Your task to perform on an android device: Show the shopping cart on bestbuy. Add "beats solo 3" to the cart on bestbuy, then select checkout. Image 0: 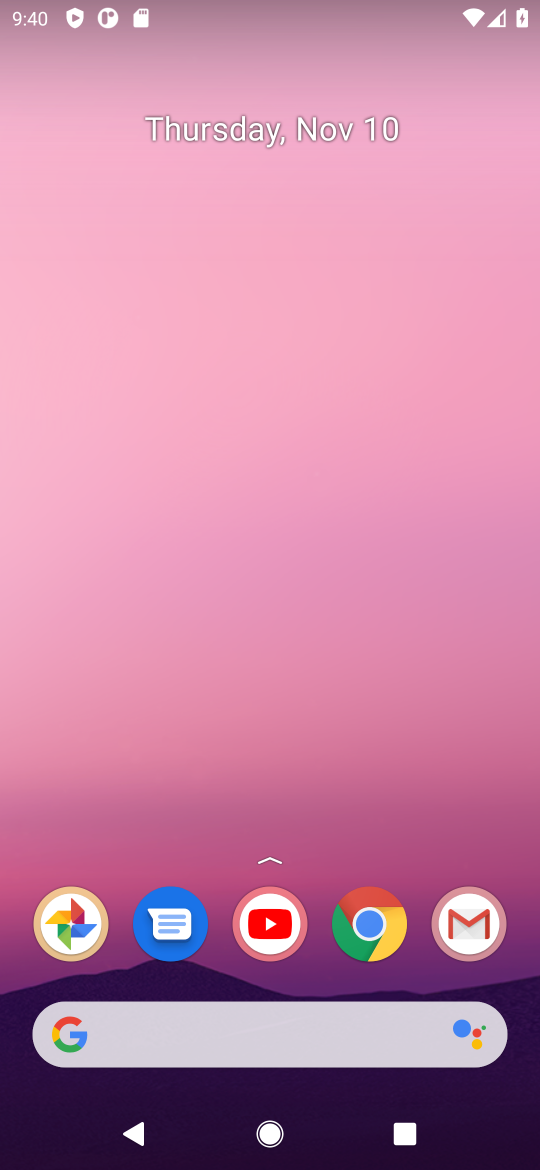
Step 0: click (371, 922)
Your task to perform on an android device: Show the shopping cart on bestbuy. Add "beats solo 3" to the cart on bestbuy, then select checkout. Image 1: 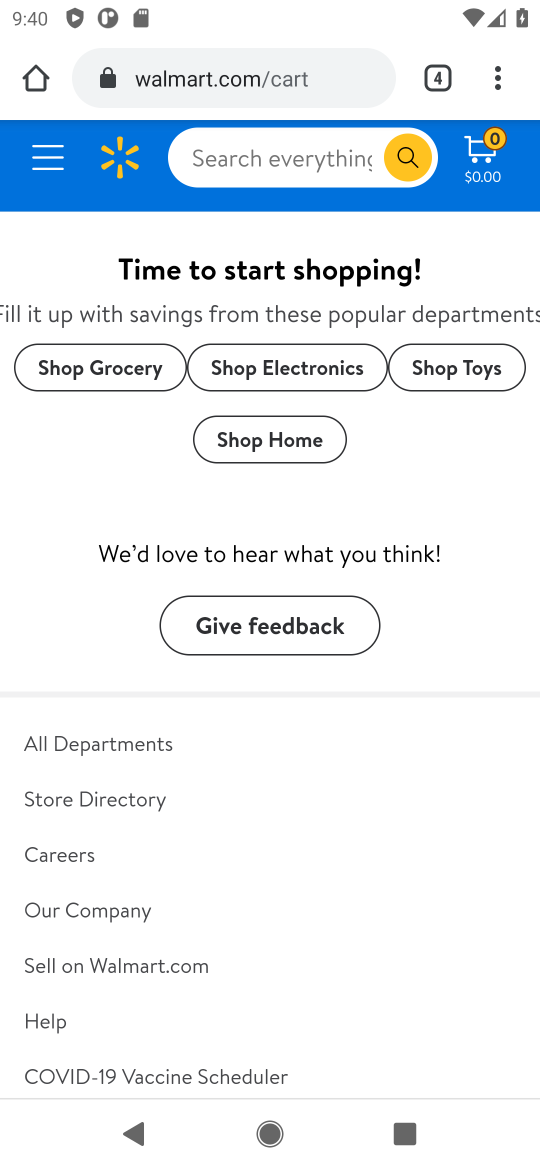
Step 1: click (212, 78)
Your task to perform on an android device: Show the shopping cart on bestbuy. Add "beats solo 3" to the cart on bestbuy, then select checkout. Image 2: 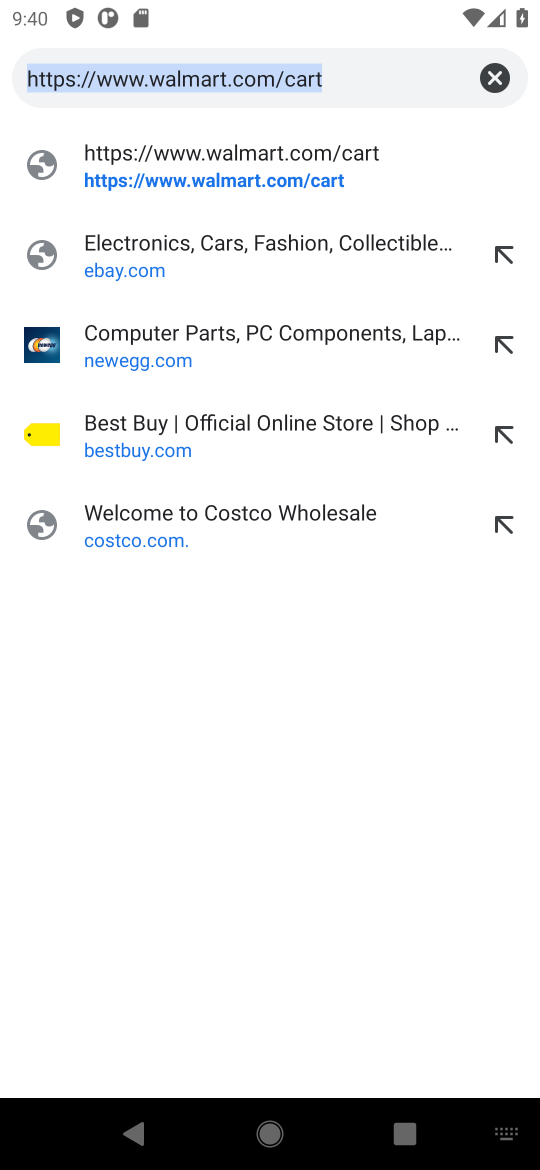
Step 2: click (136, 423)
Your task to perform on an android device: Show the shopping cart on bestbuy. Add "beats solo 3" to the cart on bestbuy, then select checkout. Image 3: 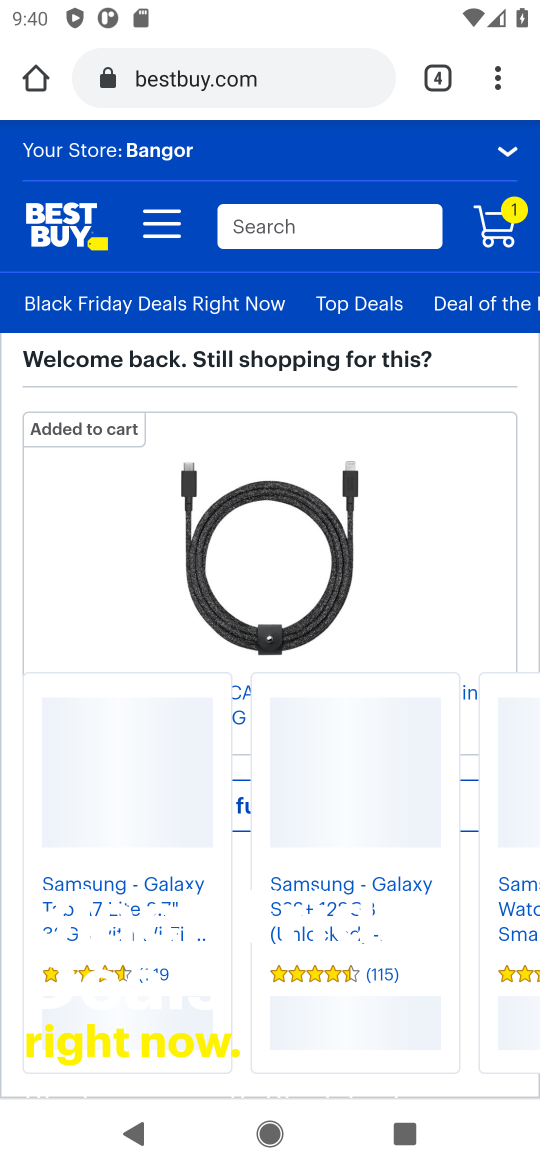
Step 3: click (491, 231)
Your task to perform on an android device: Show the shopping cart on bestbuy. Add "beats solo 3" to the cart on bestbuy, then select checkout. Image 4: 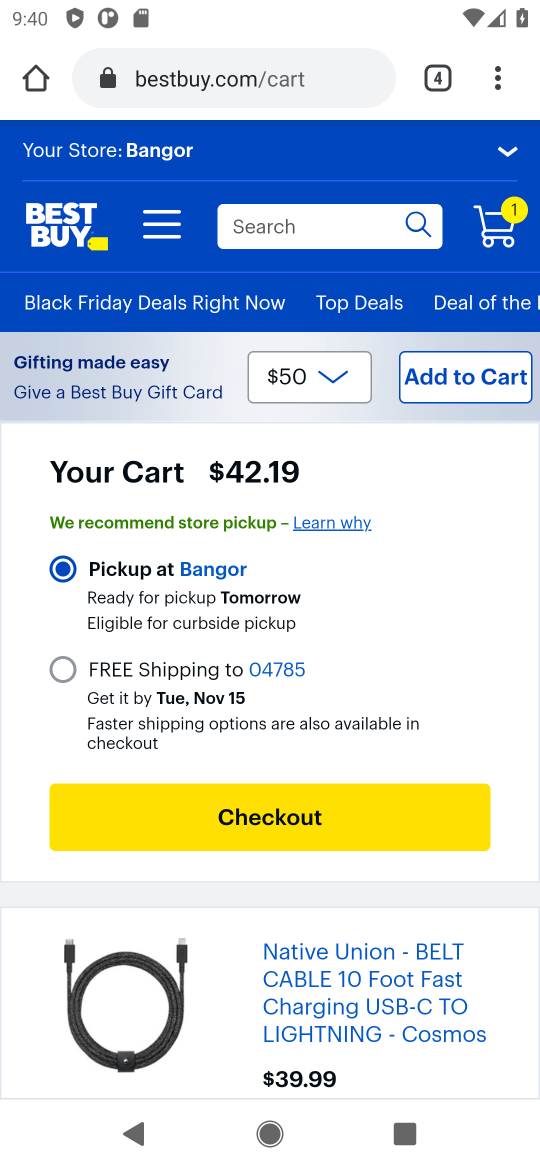
Step 4: drag from (358, 974) to (344, 617)
Your task to perform on an android device: Show the shopping cart on bestbuy. Add "beats solo 3" to the cart on bestbuy, then select checkout. Image 5: 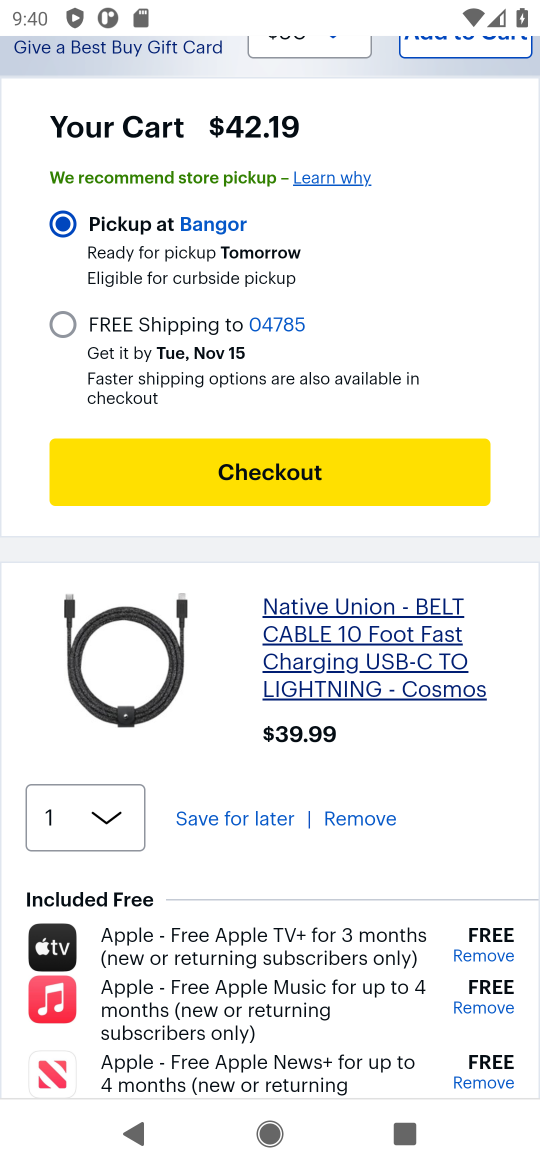
Step 5: drag from (317, 704) to (328, 982)
Your task to perform on an android device: Show the shopping cart on bestbuy. Add "beats solo 3" to the cart on bestbuy, then select checkout. Image 6: 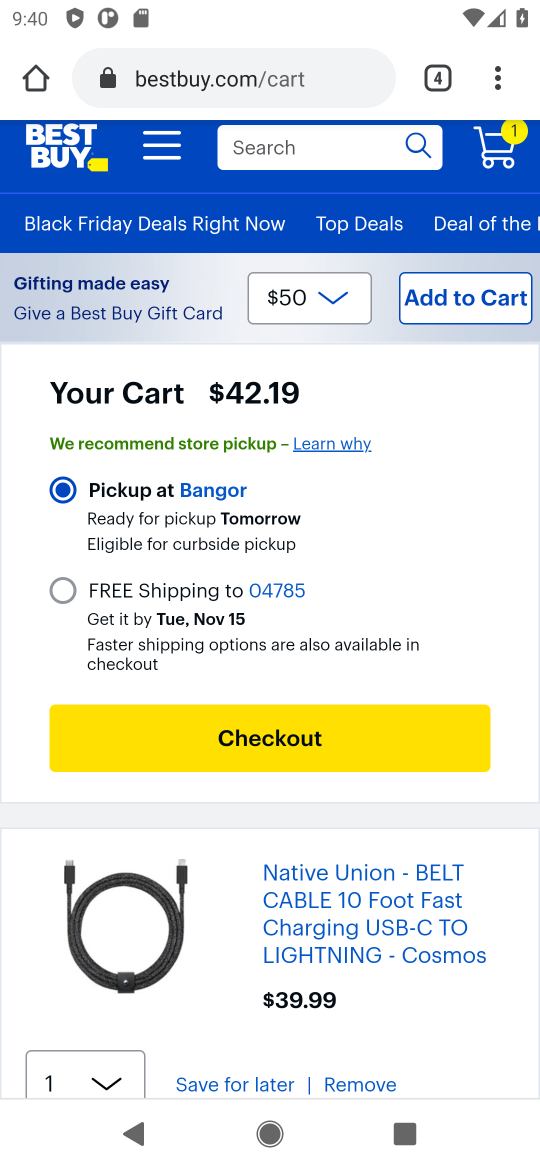
Step 6: click (297, 152)
Your task to perform on an android device: Show the shopping cart on bestbuy. Add "beats solo 3" to the cart on bestbuy, then select checkout. Image 7: 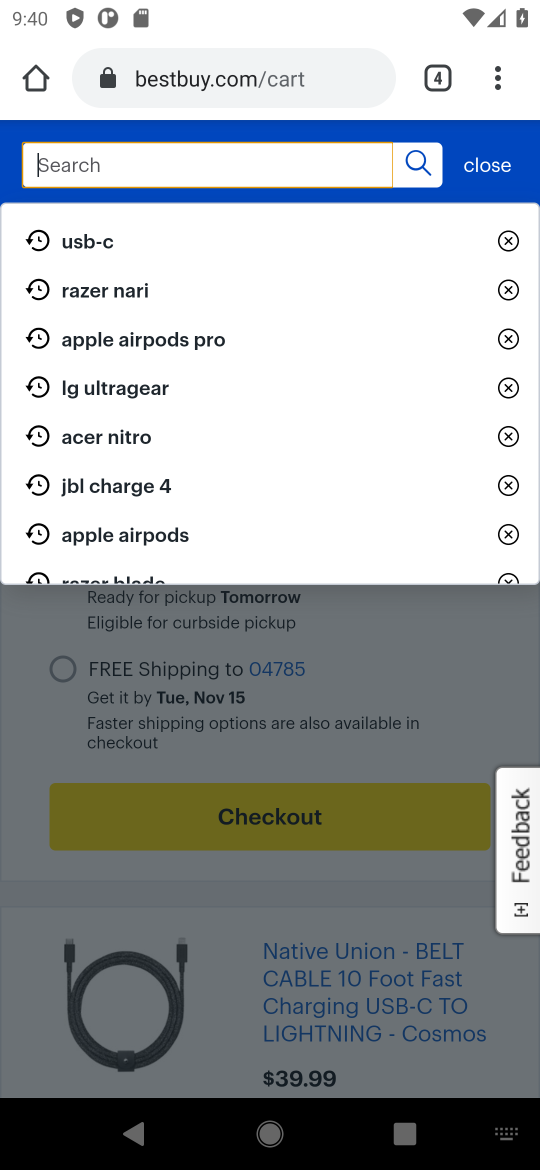
Step 7: type "beats solo 3"
Your task to perform on an android device: Show the shopping cart on bestbuy. Add "beats solo 3" to the cart on bestbuy, then select checkout. Image 8: 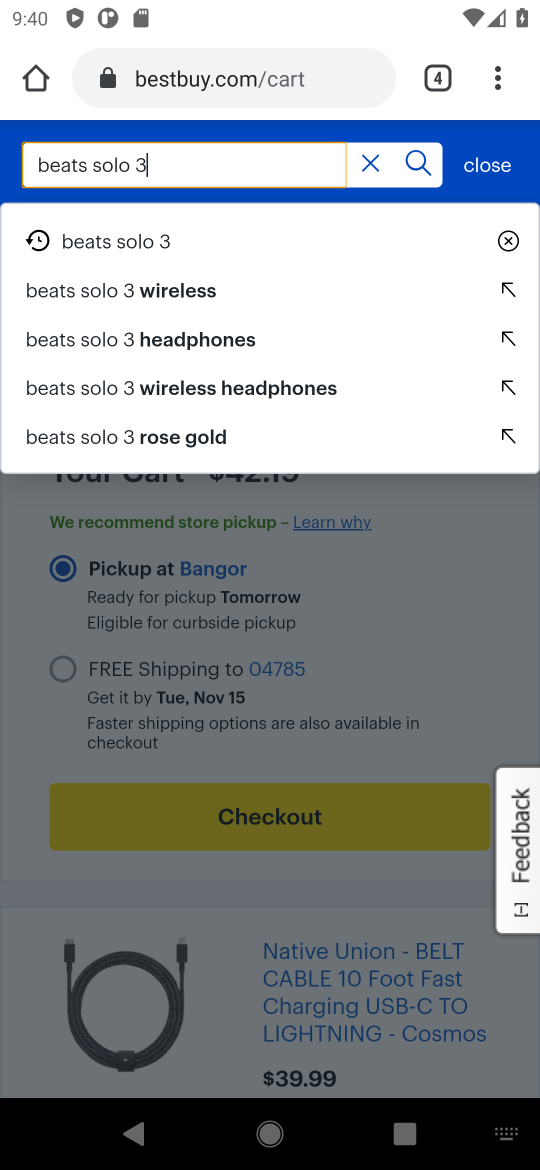
Step 8: click (140, 243)
Your task to perform on an android device: Show the shopping cart on bestbuy. Add "beats solo 3" to the cart on bestbuy, then select checkout. Image 9: 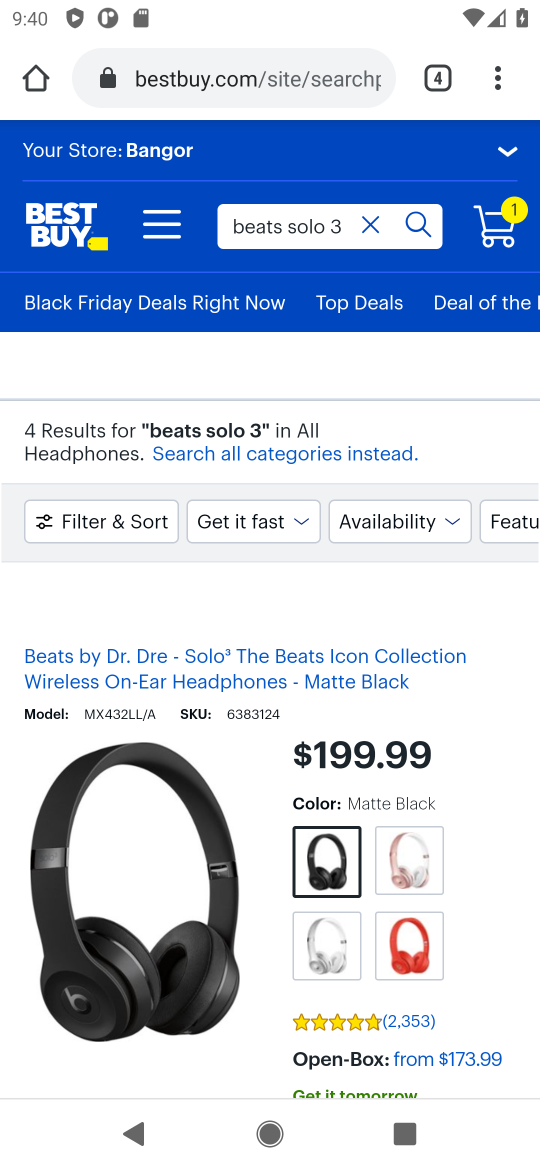
Step 9: drag from (156, 953) to (141, 619)
Your task to perform on an android device: Show the shopping cart on bestbuy. Add "beats solo 3" to the cart on bestbuy, then select checkout. Image 10: 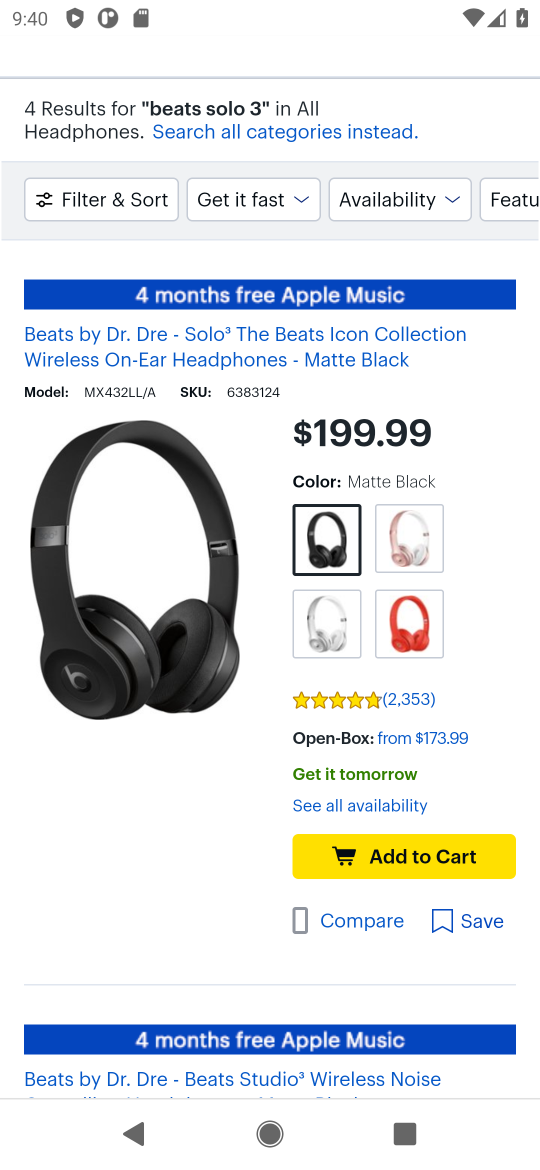
Step 10: click (467, 850)
Your task to perform on an android device: Show the shopping cart on bestbuy. Add "beats solo 3" to the cart on bestbuy, then select checkout. Image 11: 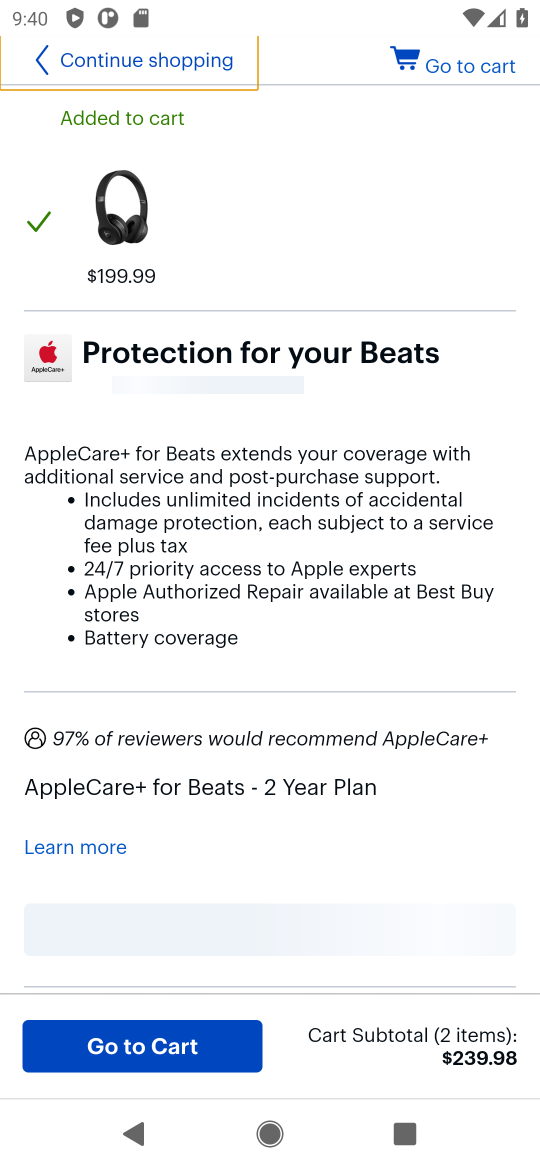
Step 11: click (482, 75)
Your task to perform on an android device: Show the shopping cart on bestbuy. Add "beats solo 3" to the cart on bestbuy, then select checkout. Image 12: 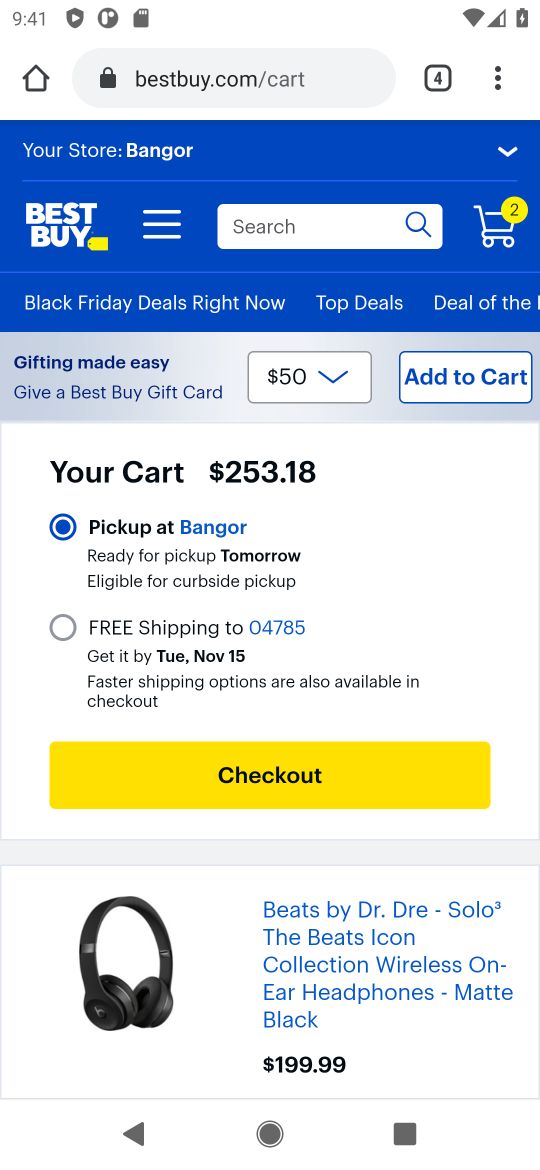
Step 12: click (265, 776)
Your task to perform on an android device: Show the shopping cart on bestbuy. Add "beats solo 3" to the cart on bestbuy, then select checkout. Image 13: 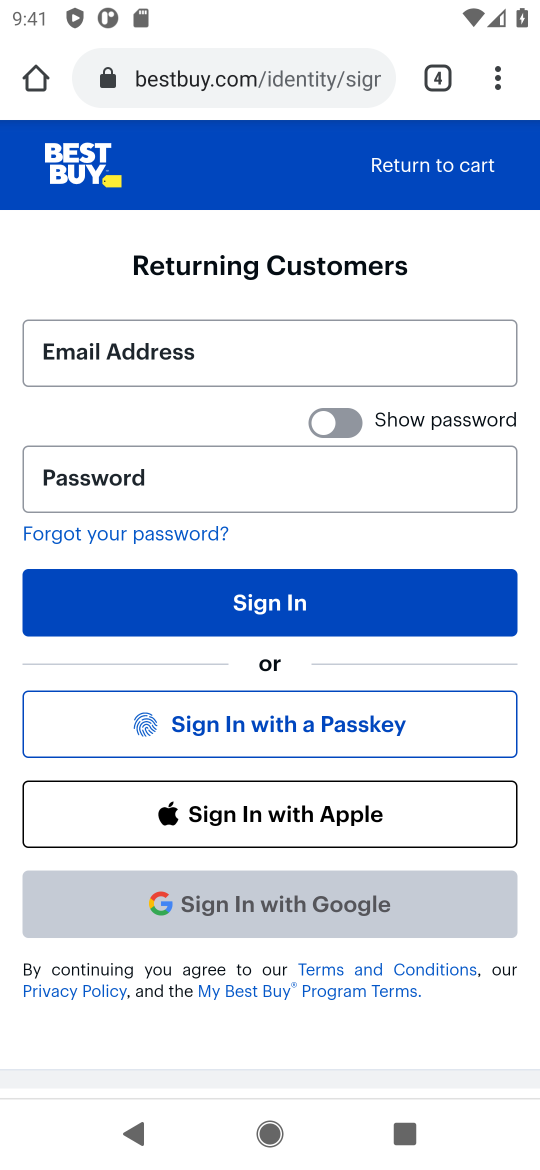
Step 13: task complete